Your task to perform on an android device: find which apps use the phone's location Image 0: 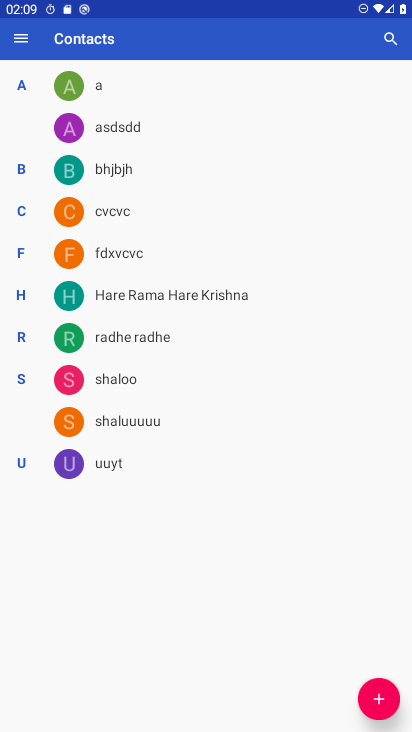
Step 0: press home button
Your task to perform on an android device: find which apps use the phone's location Image 1: 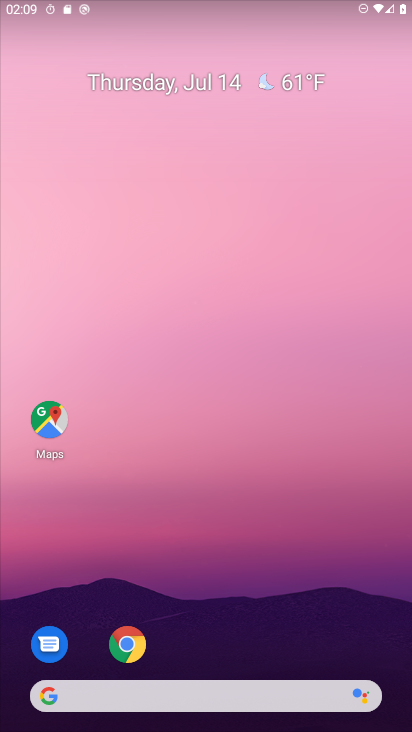
Step 1: drag from (329, 651) to (255, 147)
Your task to perform on an android device: find which apps use the phone's location Image 2: 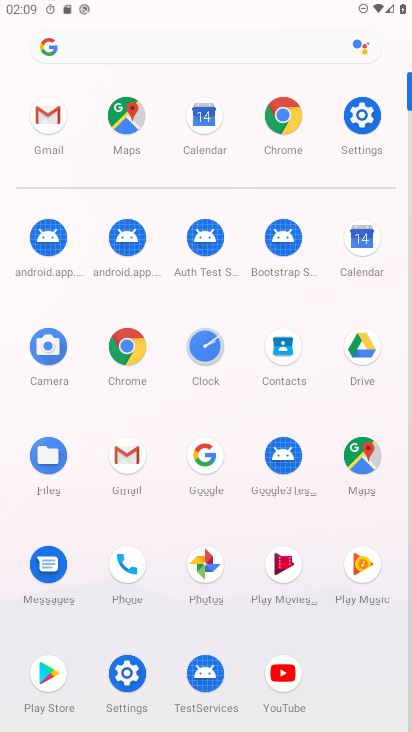
Step 2: click (364, 112)
Your task to perform on an android device: find which apps use the phone's location Image 3: 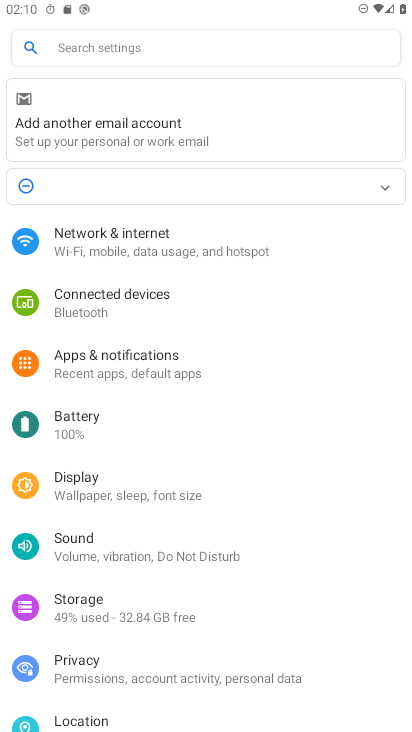
Step 3: drag from (144, 645) to (167, 319)
Your task to perform on an android device: find which apps use the phone's location Image 4: 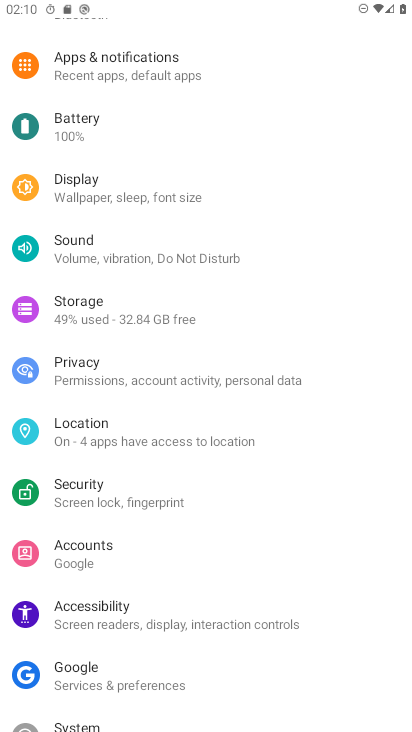
Step 4: click (108, 439)
Your task to perform on an android device: find which apps use the phone's location Image 5: 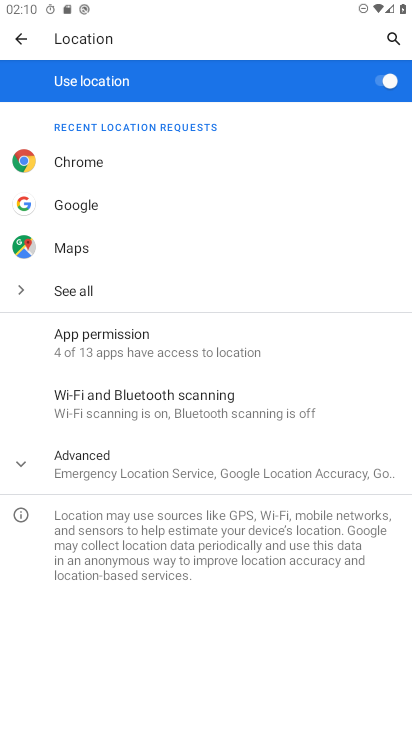
Step 5: click (95, 347)
Your task to perform on an android device: find which apps use the phone's location Image 6: 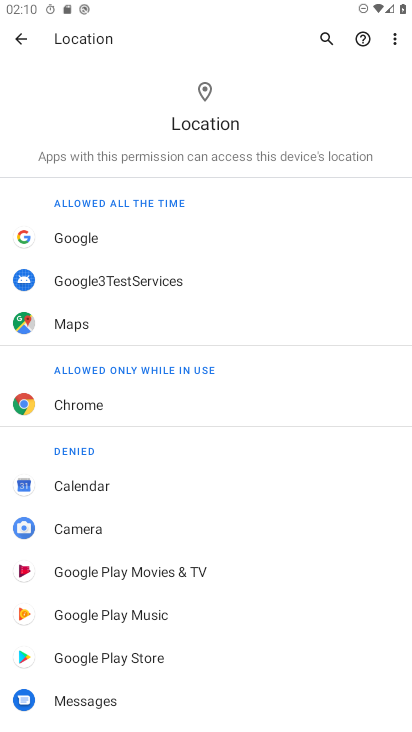
Step 6: task complete